Your task to perform on an android device: turn notification dots off Image 0: 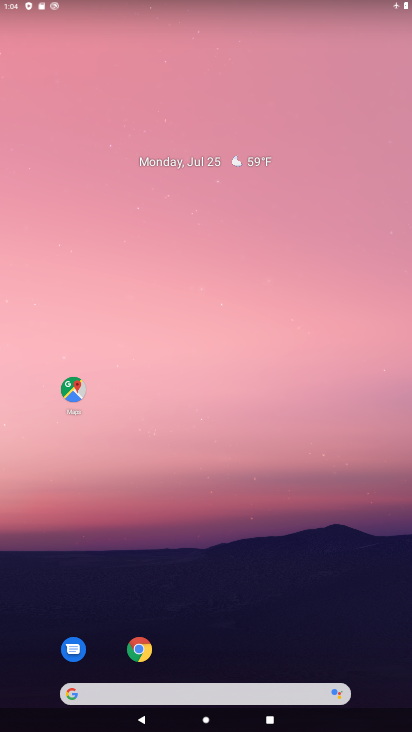
Step 0: drag from (158, 689) to (175, 76)
Your task to perform on an android device: turn notification dots off Image 1: 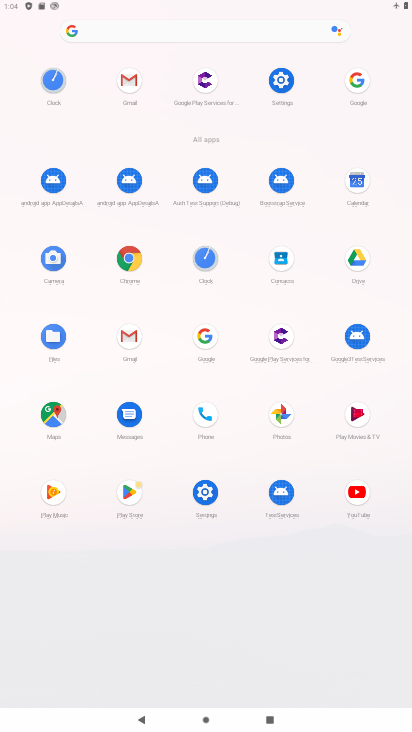
Step 1: click (206, 489)
Your task to perform on an android device: turn notification dots off Image 2: 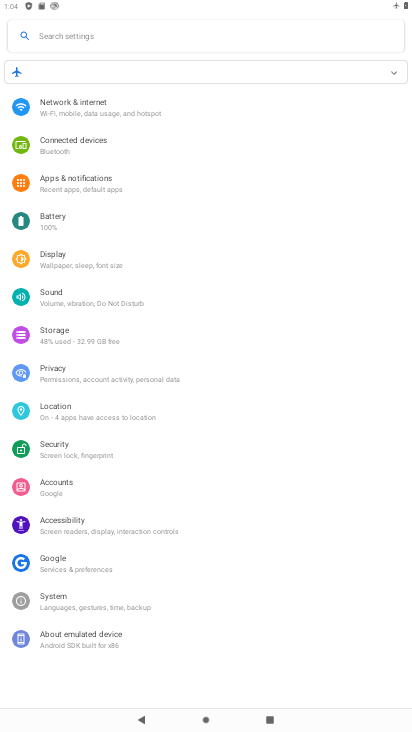
Step 2: click (92, 177)
Your task to perform on an android device: turn notification dots off Image 3: 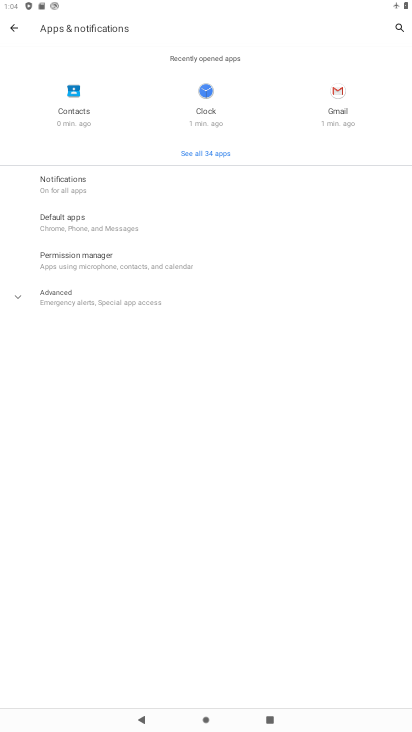
Step 3: click (62, 186)
Your task to perform on an android device: turn notification dots off Image 4: 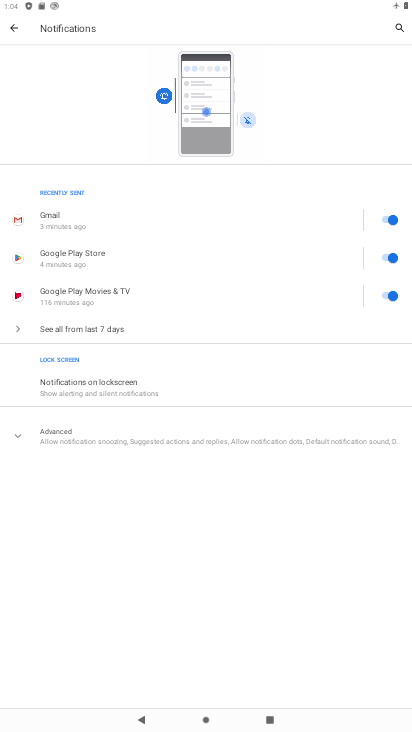
Step 4: click (98, 439)
Your task to perform on an android device: turn notification dots off Image 5: 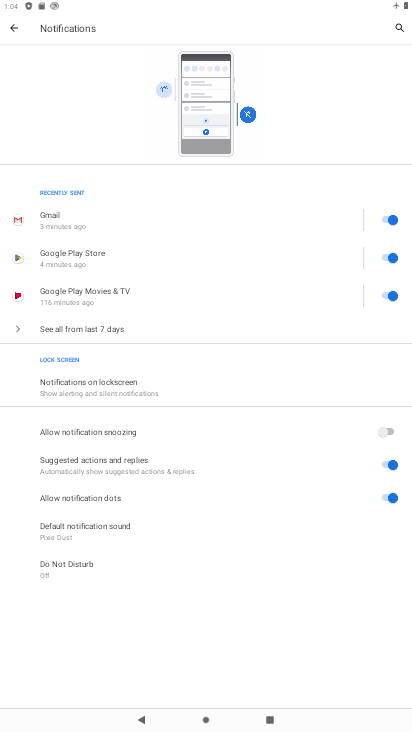
Step 5: click (389, 502)
Your task to perform on an android device: turn notification dots off Image 6: 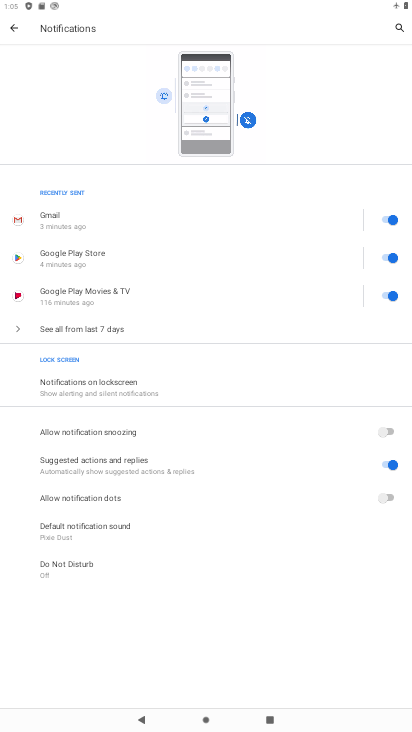
Step 6: task complete